Your task to perform on an android device: add a contact in the contacts app Image 0: 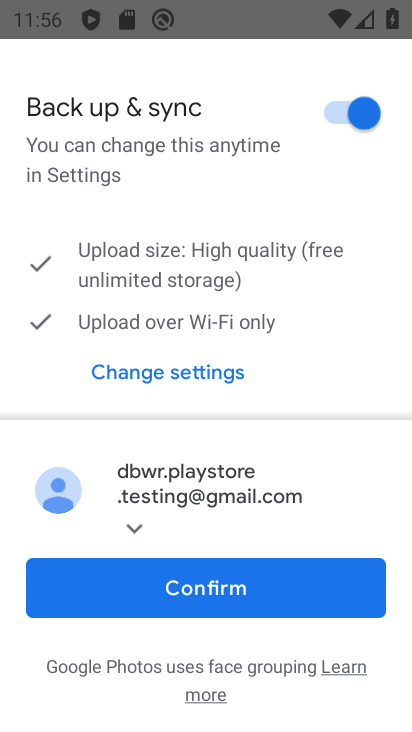
Step 0: press home button
Your task to perform on an android device: add a contact in the contacts app Image 1: 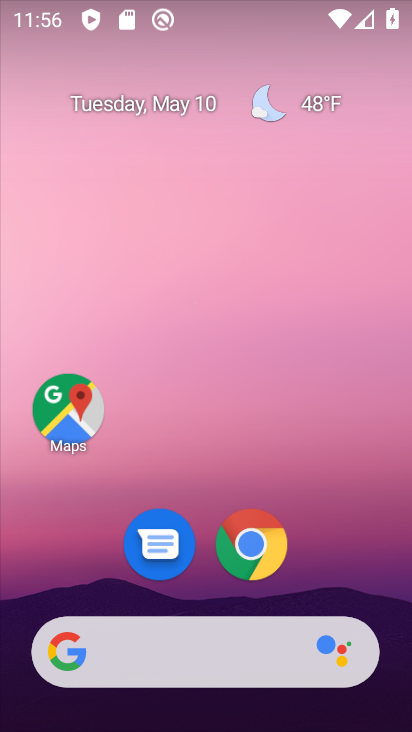
Step 1: drag from (173, 615) to (257, 103)
Your task to perform on an android device: add a contact in the contacts app Image 2: 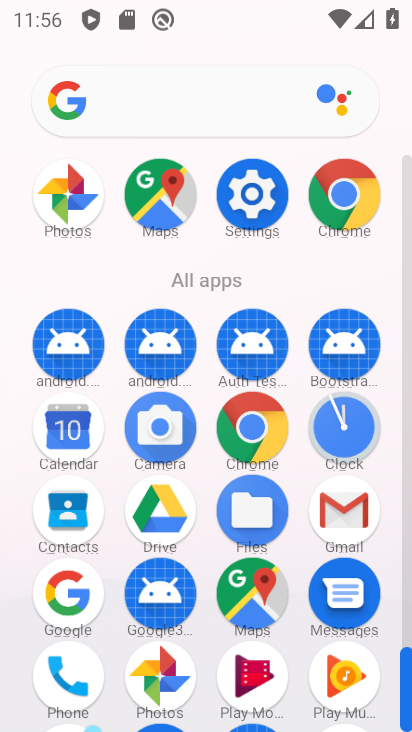
Step 2: click (80, 528)
Your task to perform on an android device: add a contact in the contacts app Image 3: 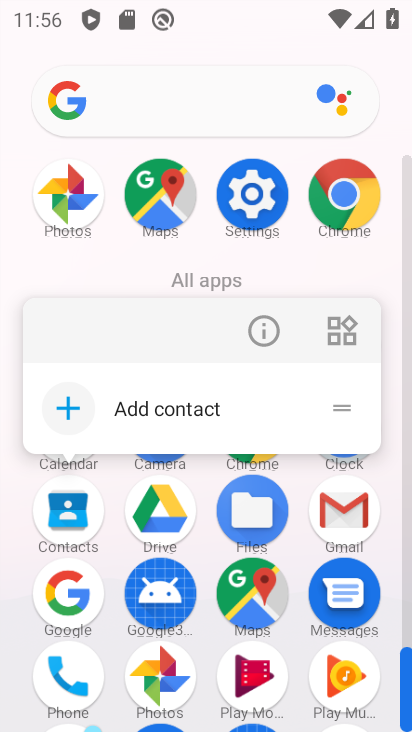
Step 3: click (77, 522)
Your task to perform on an android device: add a contact in the contacts app Image 4: 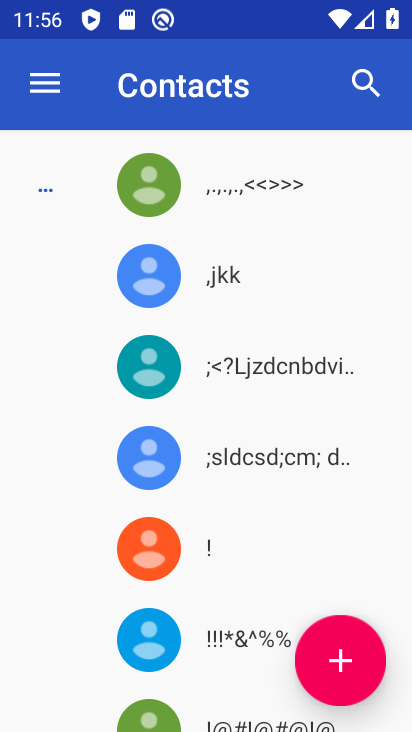
Step 4: click (330, 655)
Your task to perform on an android device: add a contact in the contacts app Image 5: 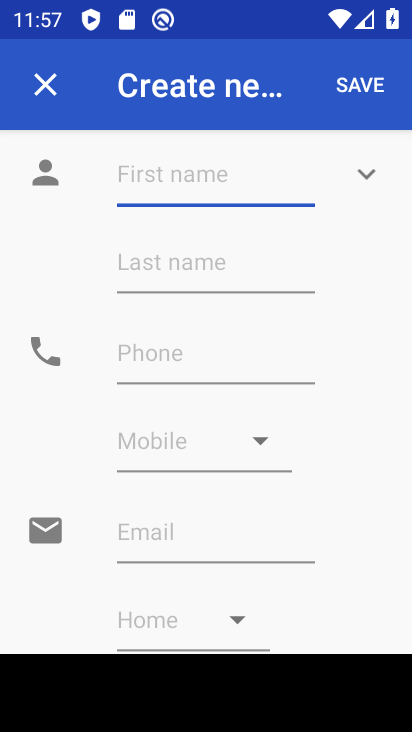
Step 5: type "xcvvcxxcv"
Your task to perform on an android device: add a contact in the contacts app Image 6: 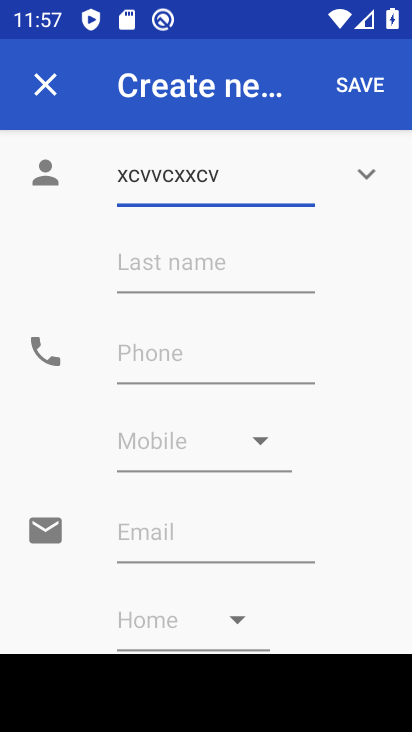
Step 6: click (214, 365)
Your task to perform on an android device: add a contact in the contacts app Image 7: 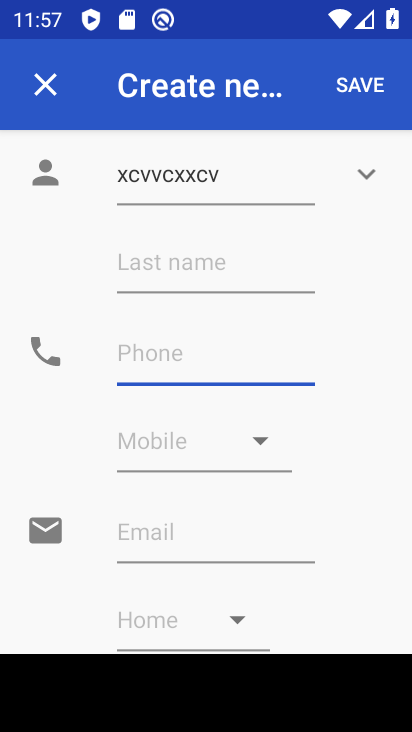
Step 7: type "989898989"
Your task to perform on an android device: add a contact in the contacts app Image 8: 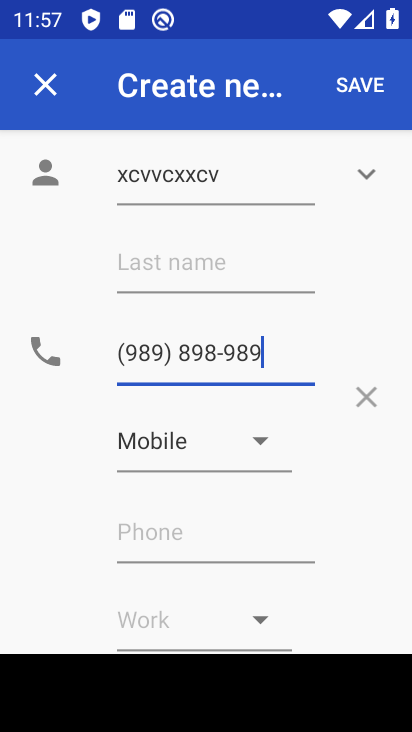
Step 8: click (370, 110)
Your task to perform on an android device: add a contact in the contacts app Image 9: 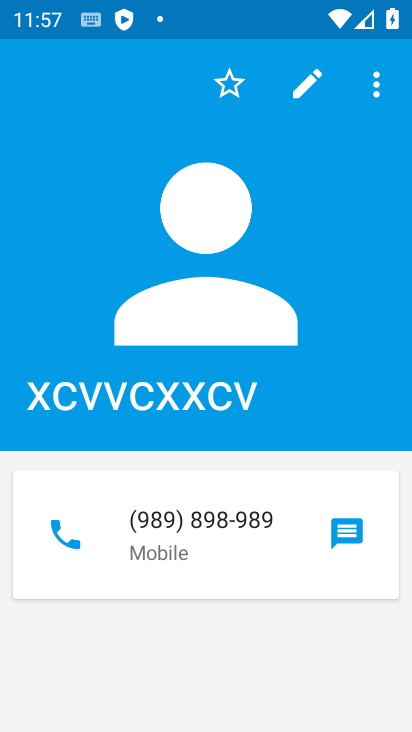
Step 9: task complete